Your task to perform on an android device: empty trash in google photos Image 0: 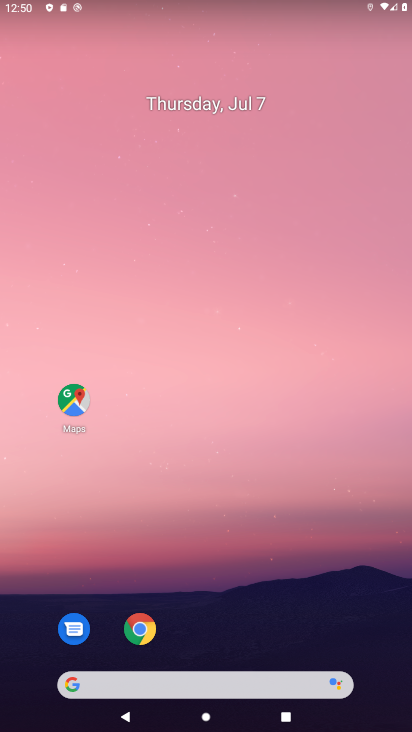
Step 0: drag from (203, 633) to (207, 106)
Your task to perform on an android device: empty trash in google photos Image 1: 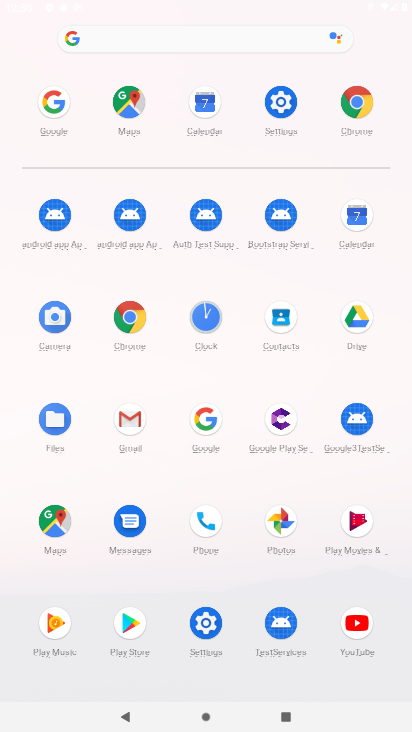
Step 1: click (283, 517)
Your task to perform on an android device: empty trash in google photos Image 2: 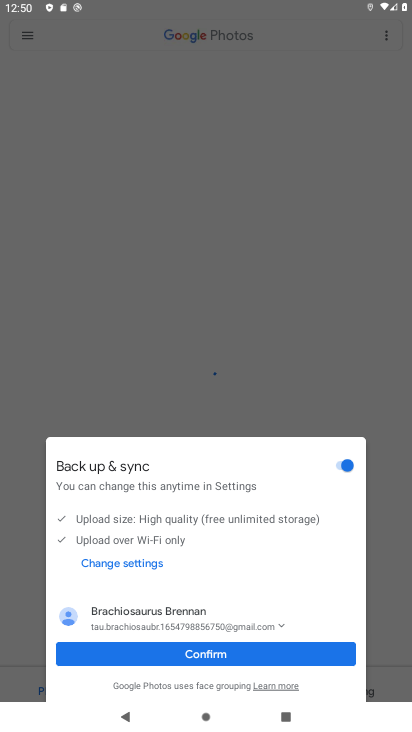
Step 2: click (183, 647)
Your task to perform on an android device: empty trash in google photos Image 3: 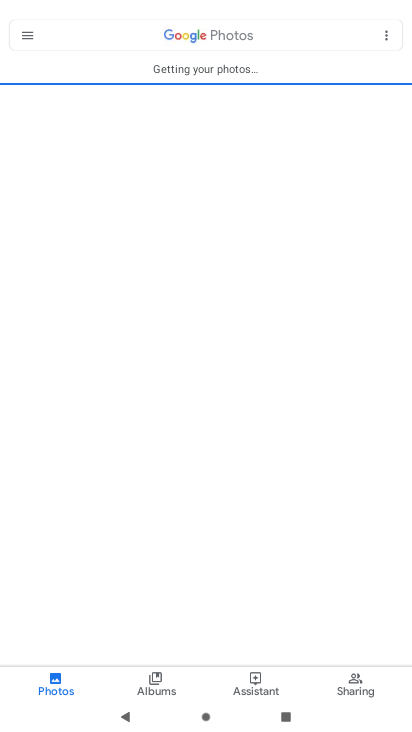
Step 3: click (26, 37)
Your task to perform on an android device: empty trash in google photos Image 4: 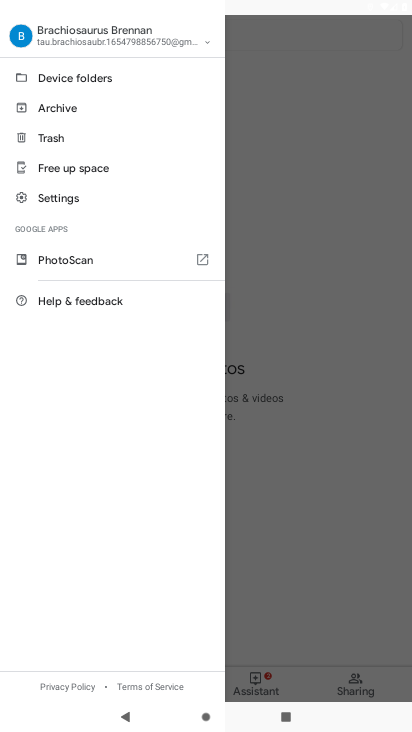
Step 4: click (61, 133)
Your task to perform on an android device: empty trash in google photos Image 5: 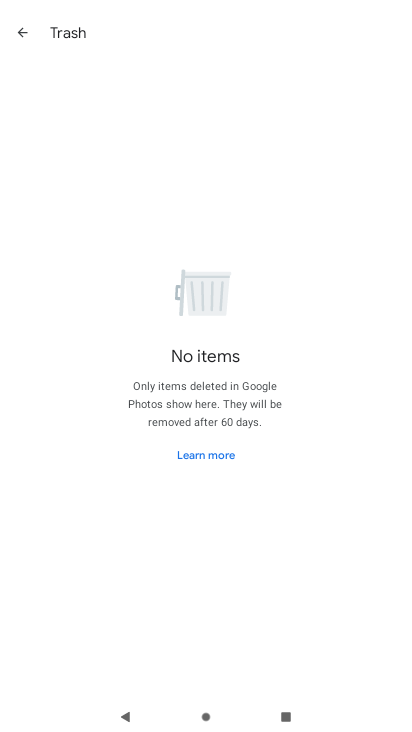
Step 5: task complete